Your task to perform on an android device: change text size in settings app Image 0: 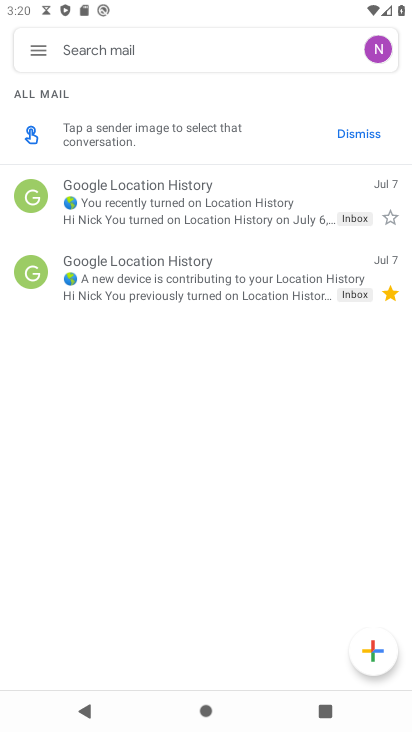
Step 0: press home button
Your task to perform on an android device: change text size in settings app Image 1: 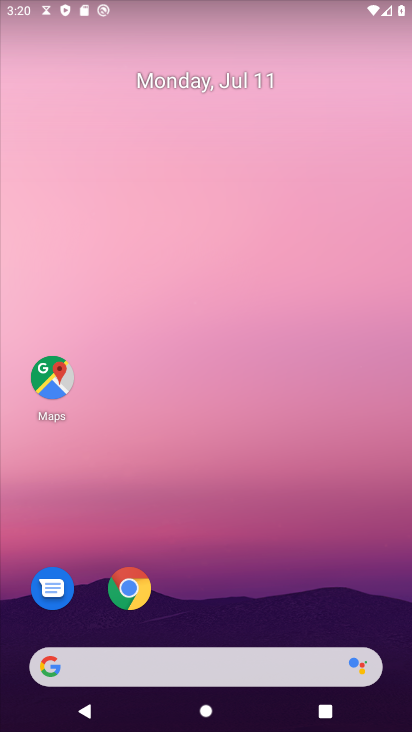
Step 1: drag from (258, 560) to (238, 98)
Your task to perform on an android device: change text size in settings app Image 2: 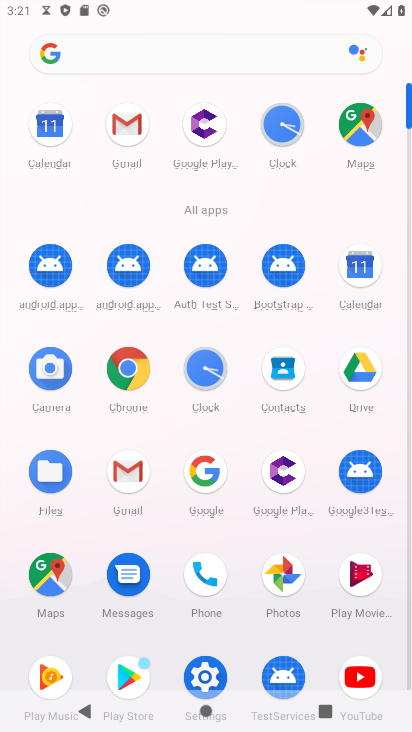
Step 2: click (206, 669)
Your task to perform on an android device: change text size in settings app Image 3: 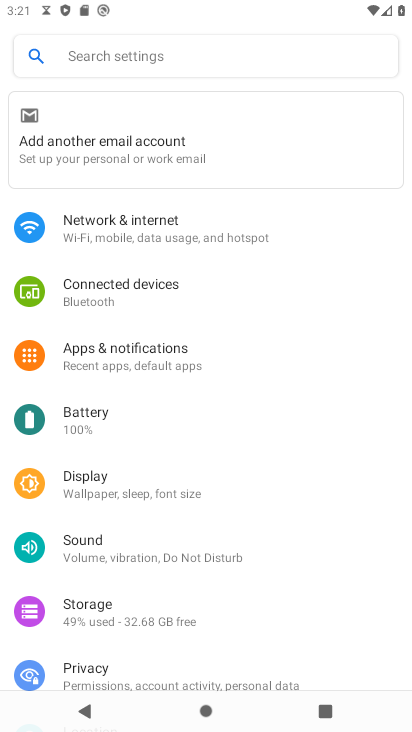
Step 3: click (266, 486)
Your task to perform on an android device: change text size in settings app Image 4: 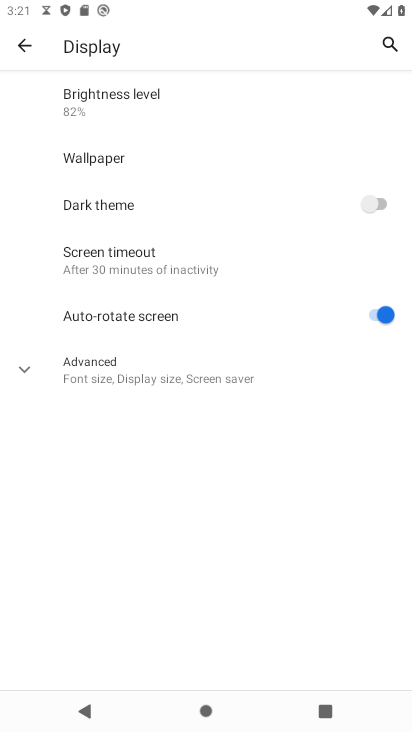
Step 4: click (160, 367)
Your task to perform on an android device: change text size in settings app Image 5: 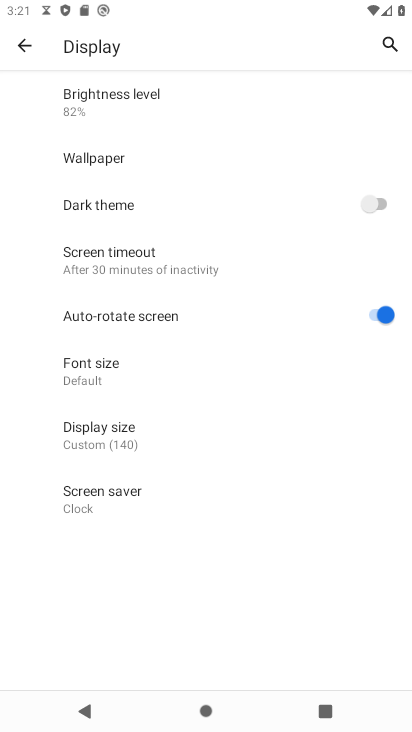
Step 5: click (134, 380)
Your task to perform on an android device: change text size in settings app Image 6: 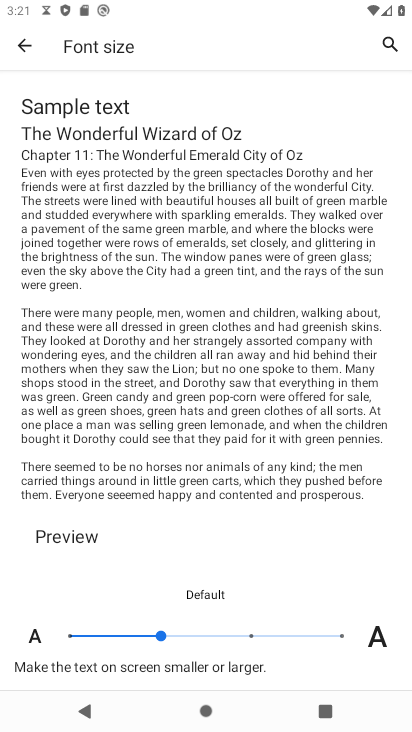
Step 6: click (247, 636)
Your task to perform on an android device: change text size in settings app Image 7: 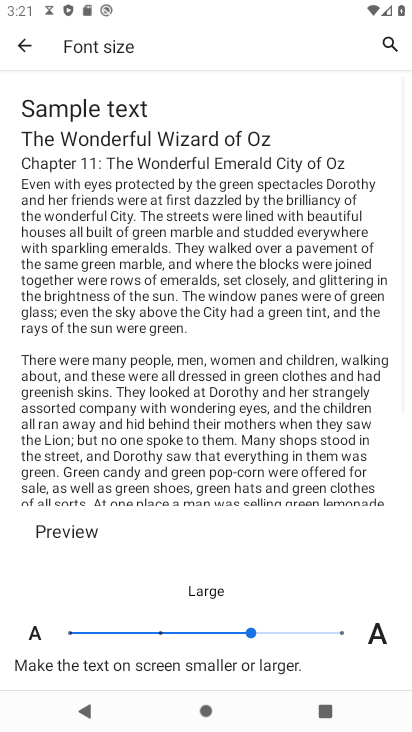
Step 7: task complete